Your task to perform on an android device: open app "Reddit" (install if not already installed) and go to login screen Image 0: 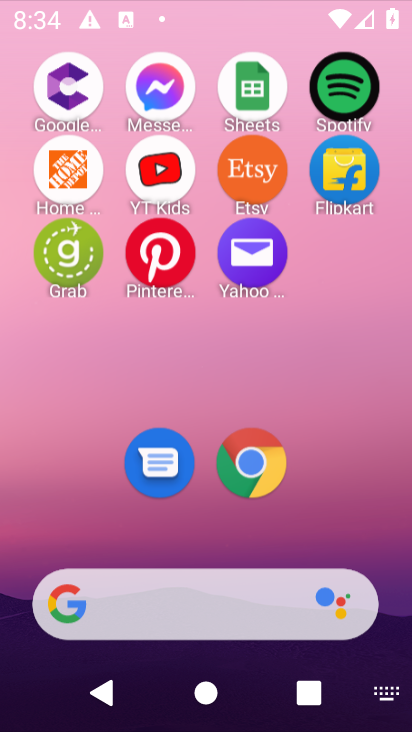
Step 0: click (207, 8)
Your task to perform on an android device: open app "Reddit" (install if not already installed) and go to login screen Image 1: 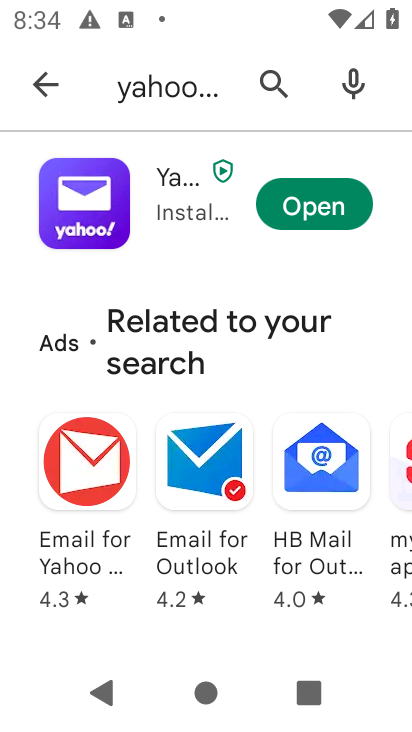
Step 1: click (267, 60)
Your task to perform on an android device: open app "Reddit" (install if not already installed) and go to login screen Image 2: 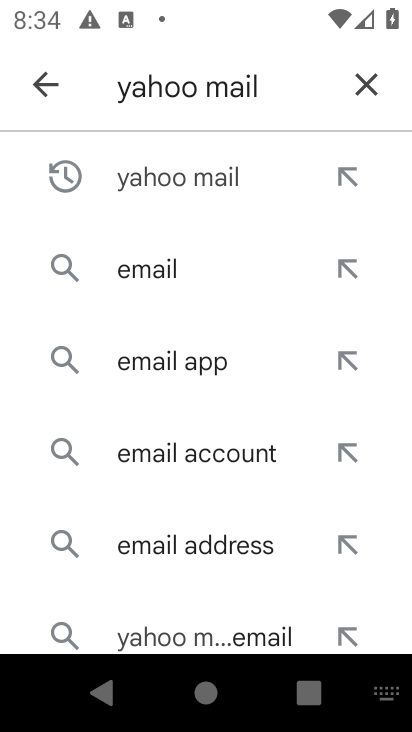
Step 2: click (355, 83)
Your task to perform on an android device: open app "Reddit" (install if not already installed) and go to login screen Image 3: 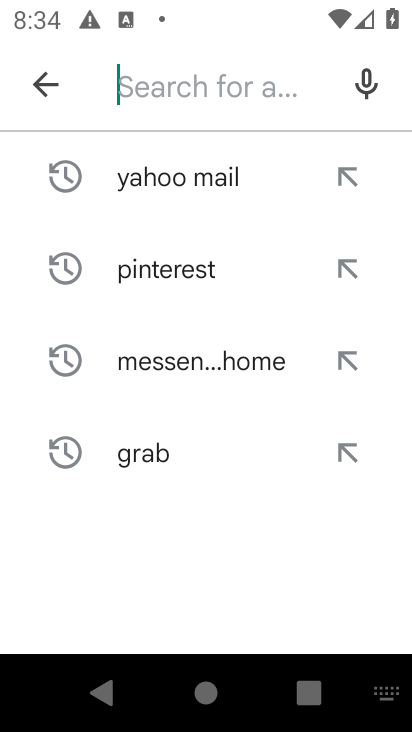
Step 3: type "reddit"
Your task to perform on an android device: open app "Reddit" (install if not already installed) and go to login screen Image 4: 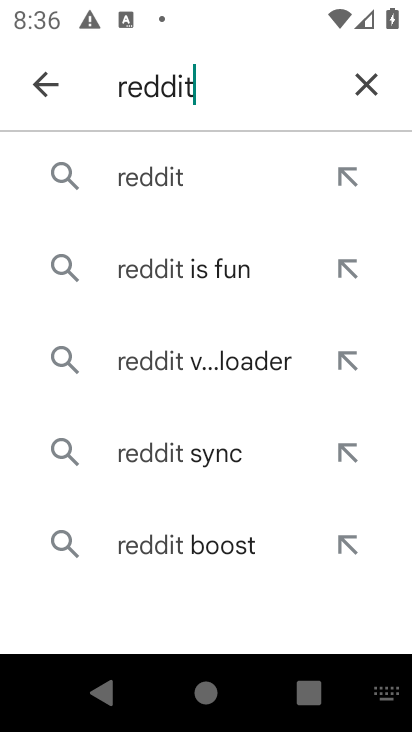
Step 4: click (146, 163)
Your task to perform on an android device: open app "Reddit" (install if not already installed) and go to login screen Image 5: 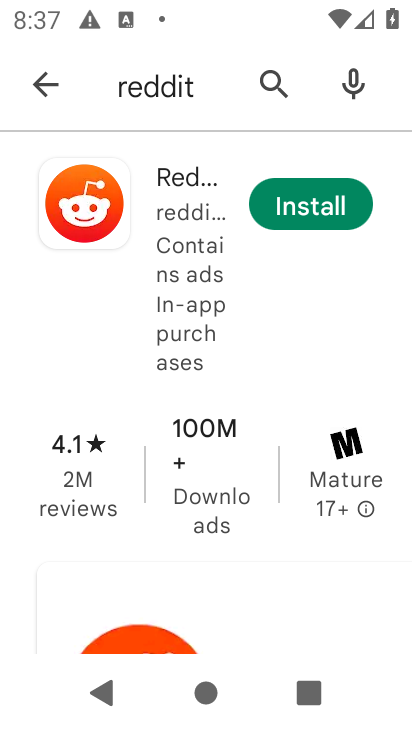
Step 5: click (285, 213)
Your task to perform on an android device: open app "Reddit" (install if not already installed) and go to login screen Image 6: 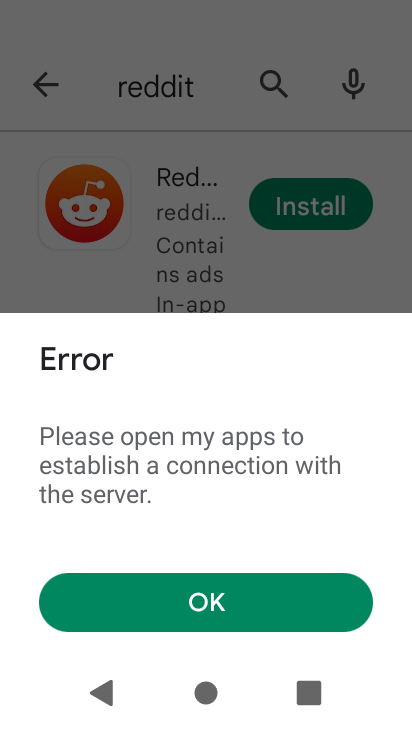
Step 6: click (204, 589)
Your task to perform on an android device: open app "Reddit" (install if not already installed) and go to login screen Image 7: 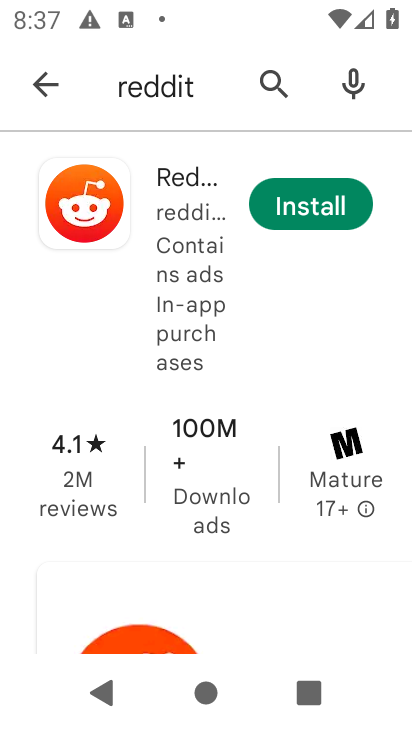
Step 7: click (294, 201)
Your task to perform on an android device: open app "Reddit" (install if not already installed) and go to login screen Image 8: 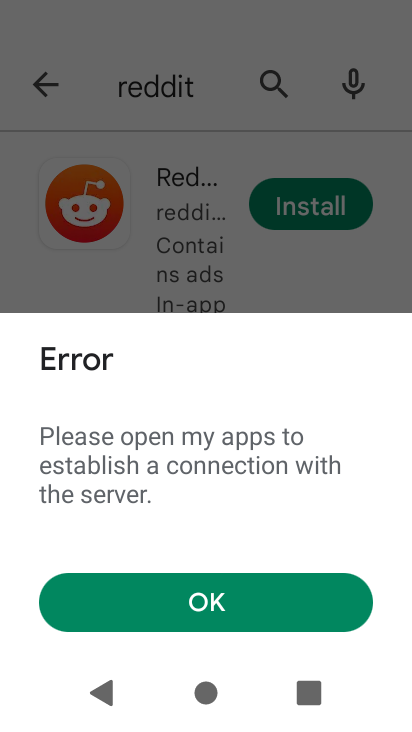
Step 8: click (186, 599)
Your task to perform on an android device: open app "Reddit" (install if not already installed) and go to login screen Image 9: 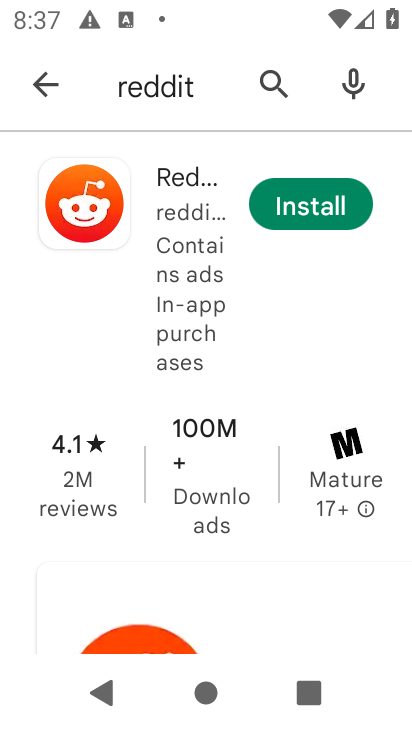
Step 9: task complete